Your task to perform on an android device: Open Google Maps and go to "Timeline" Image 0: 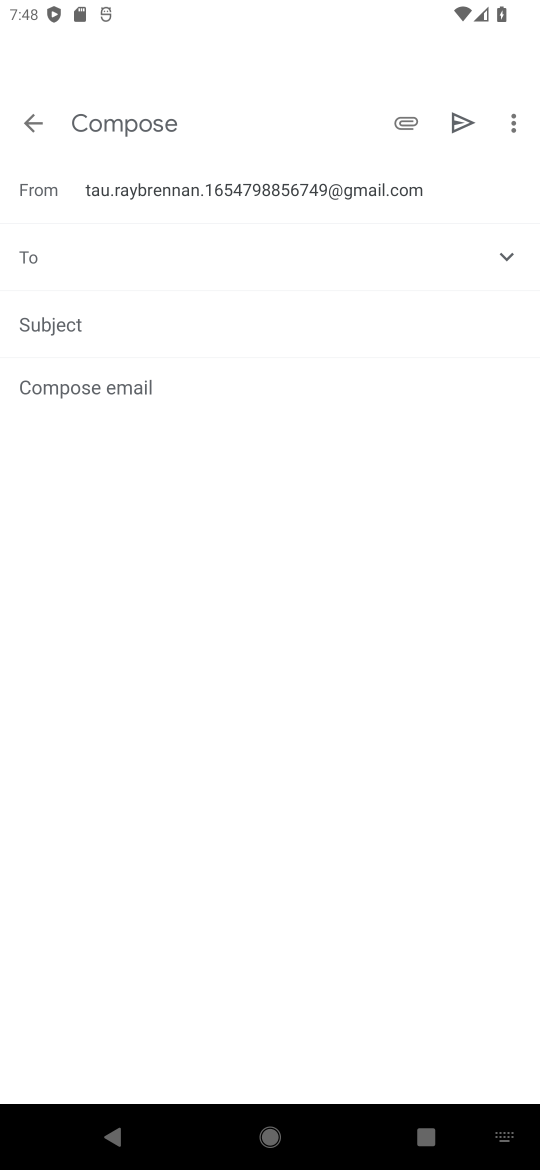
Step 0: press home button
Your task to perform on an android device: Open Google Maps and go to "Timeline" Image 1: 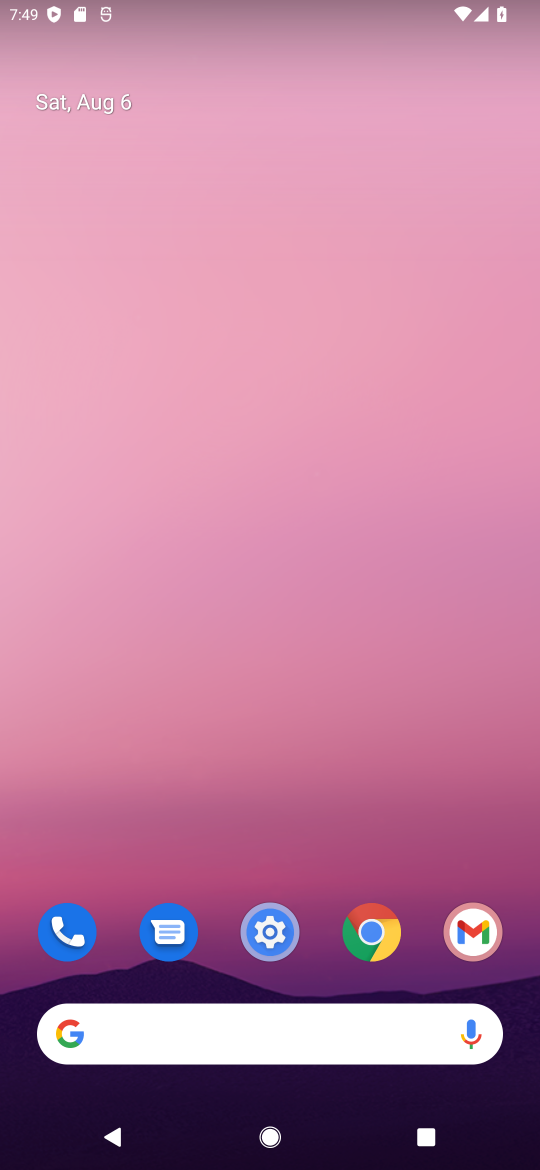
Step 1: drag from (245, 946) to (449, 149)
Your task to perform on an android device: Open Google Maps and go to "Timeline" Image 2: 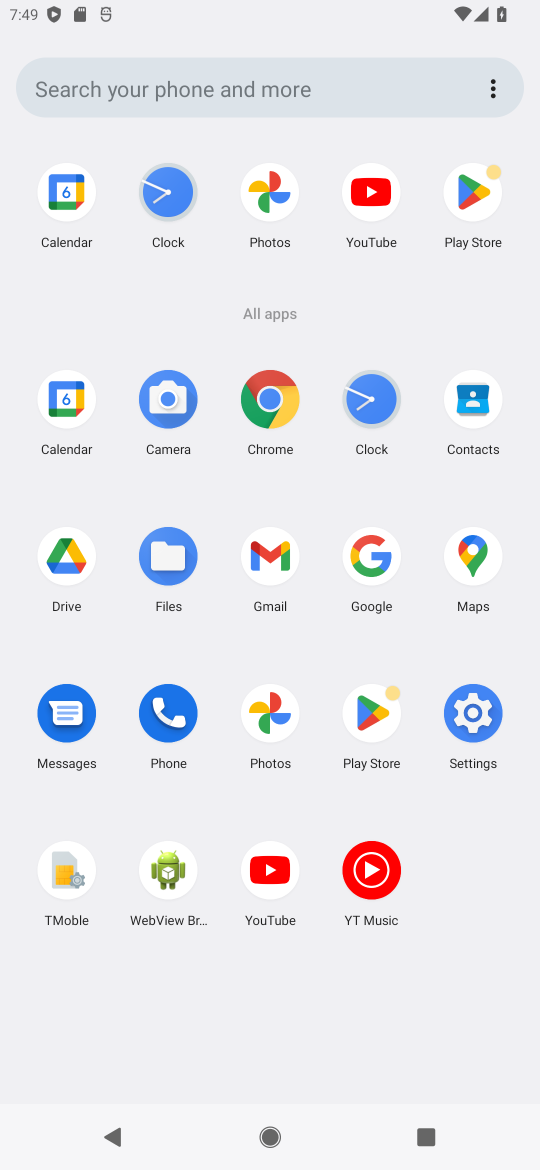
Step 2: click (465, 561)
Your task to perform on an android device: Open Google Maps and go to "Timeline" Image 3: 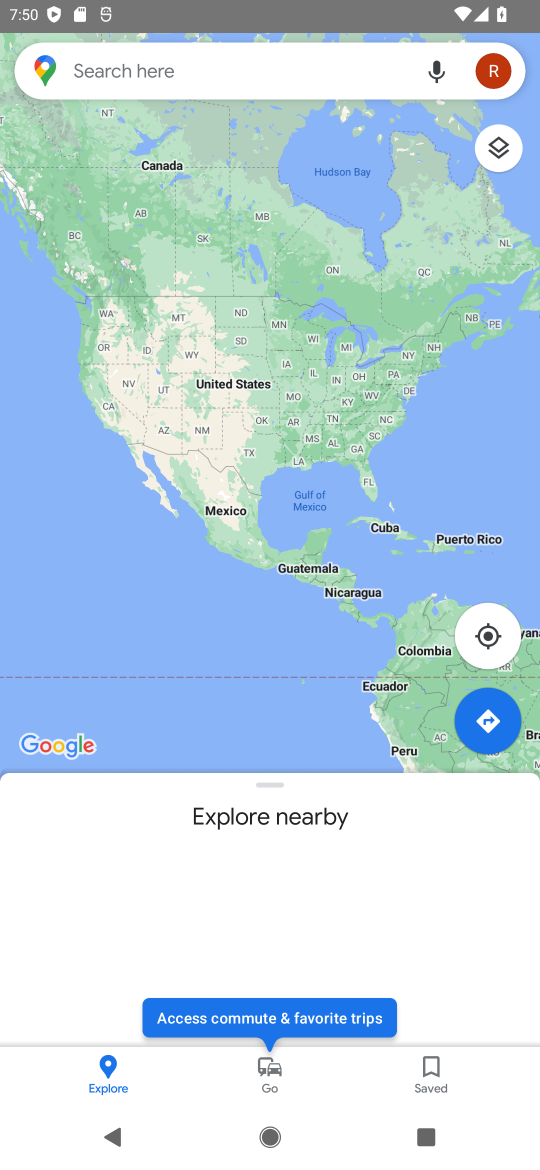
Step 3: click (41, 65)
Your task to perform on an android device: Open Google Maps and go to "Timeline" Image 4: 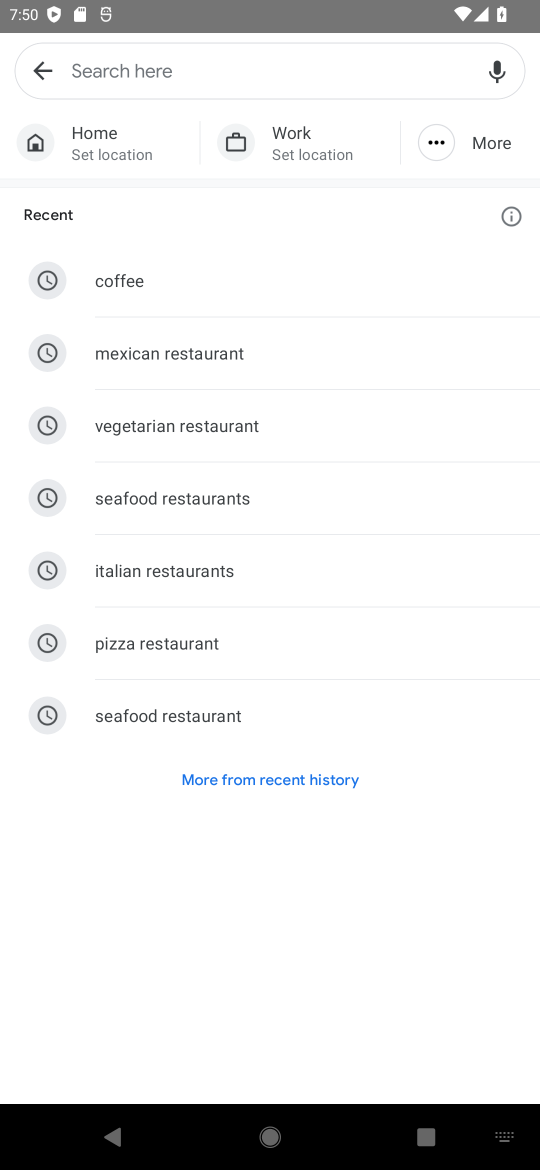
Step 4: click (382, 75)
Your task to perform on an android device: Open Google Maps and go to "Timeline" Image 5: 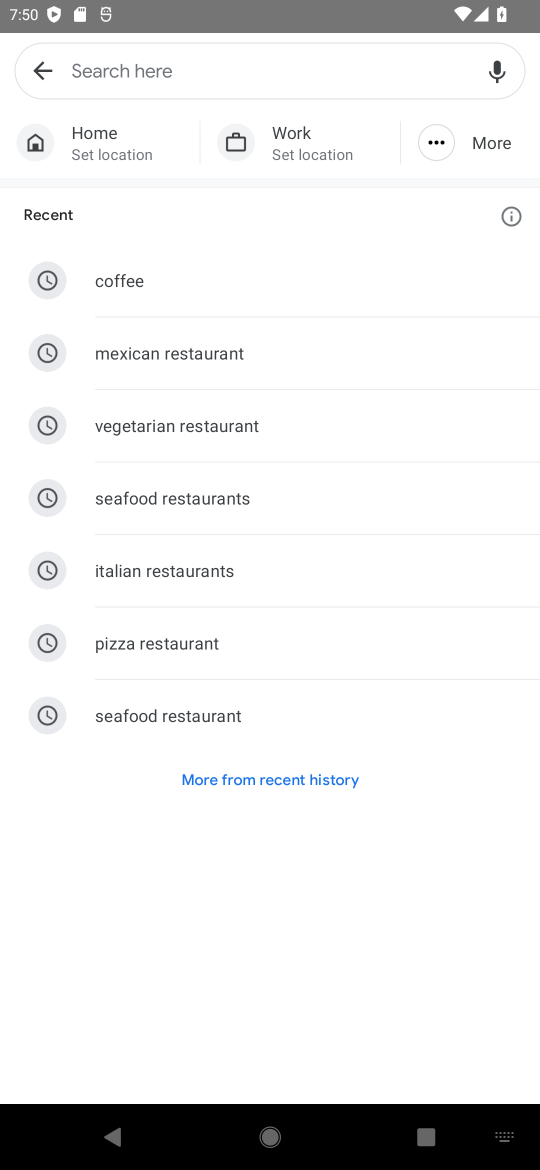
Step 5: task complete